Your task to perform on an android device: open wifi settings Image 0: 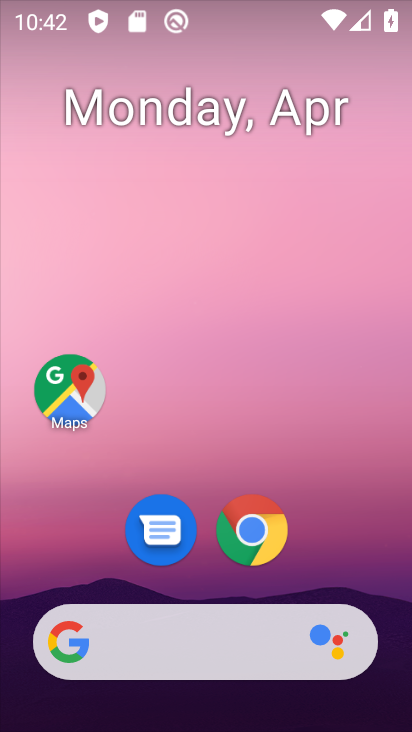
Step 0: drag from (352, 513) to (279, 51)
Your task to perform on an android device: open wifi settings Image 1: 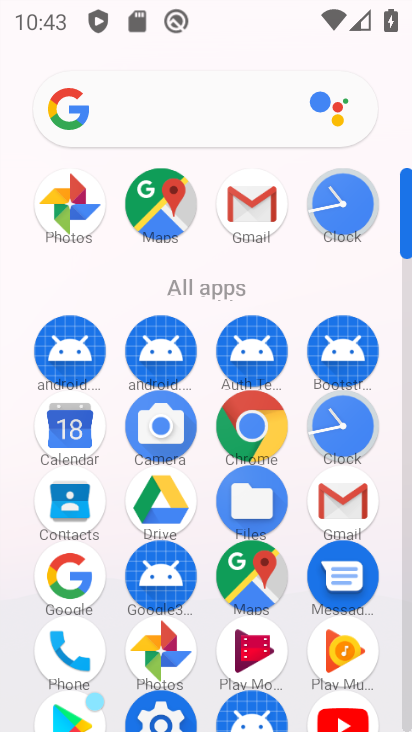
Step 1: click (409, 723)
Your task to perform on an android device: open wifi settings Image 2: 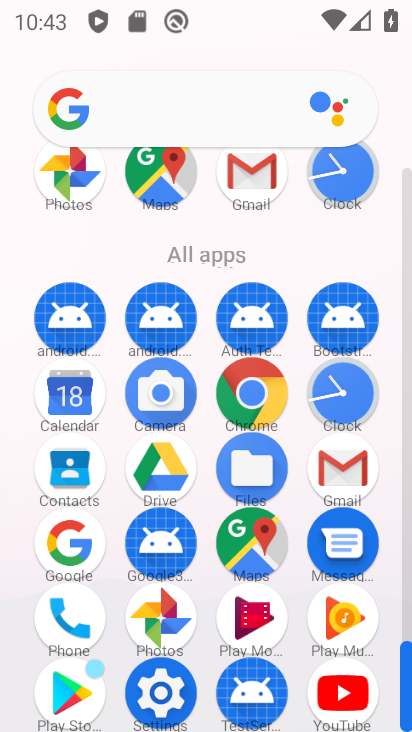
Step 2: click (152, 683)
Your task to perform on an android device: open wifi settings Image 3: 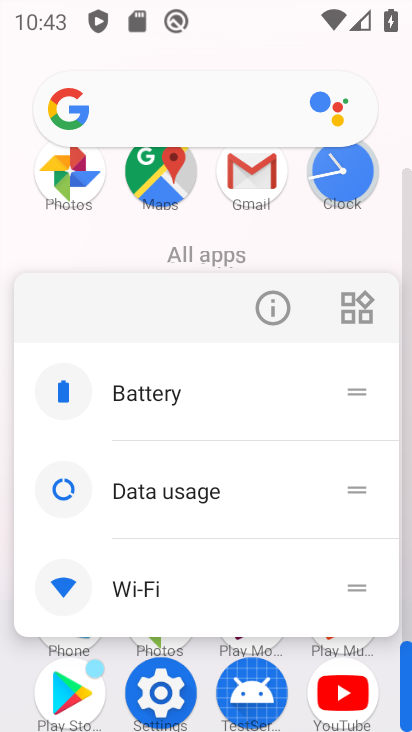
Step 3: click (152, 683)
Your task to perform on an android device: open wifi settings Image 4: 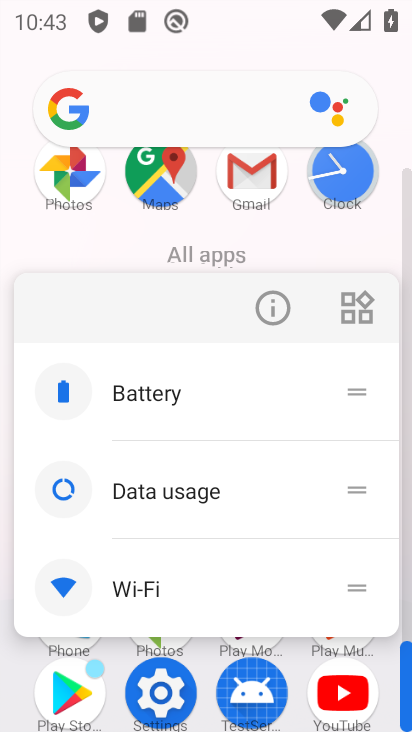
Step 4: click (152, 683)
Your task to perform on an android device: open wifi settings Image 5: 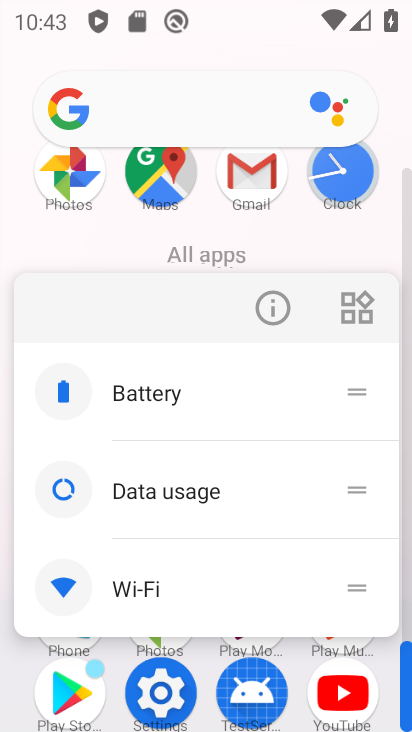
Step 5: click (152, 683)
Your task to perform on an android device: open wifi settings Image 6: 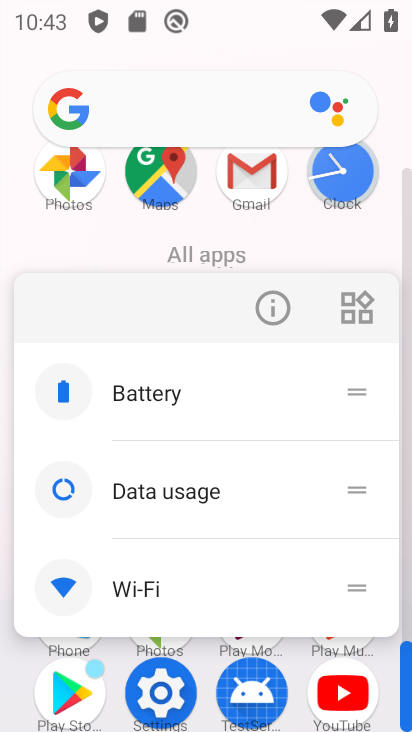
Step 6: click (152, 683)
Your task to perform on an android device: open wifi settings Image 7: 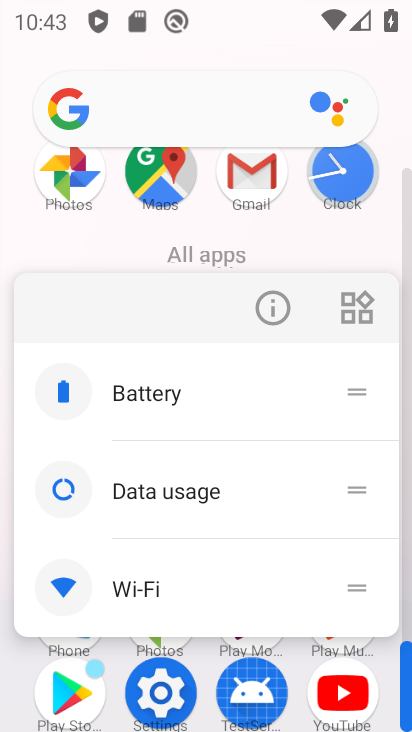
Step 7: click (153, 694)
Your task to perform on an android device: open wifi settings Image 8: 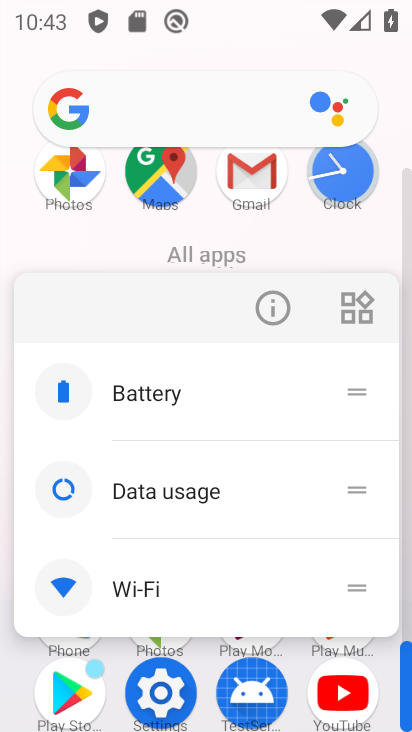
Step 8: click (153, 694)
Your task to perform on an android device: open wifi settings Image 9: 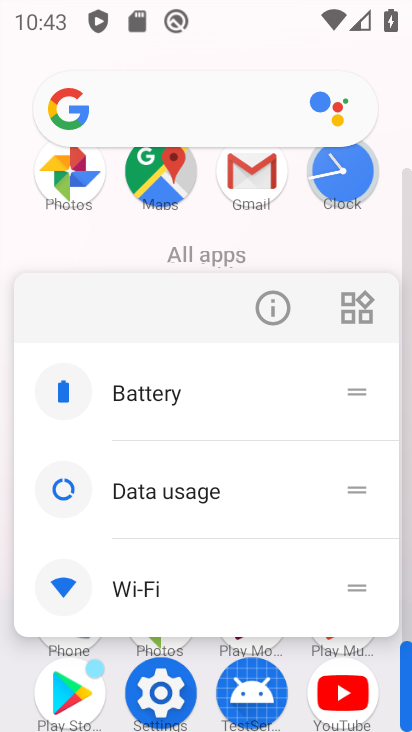
Step 9: click (153, 694)
Your task to perform on an android device: open wifi settings Image 10: 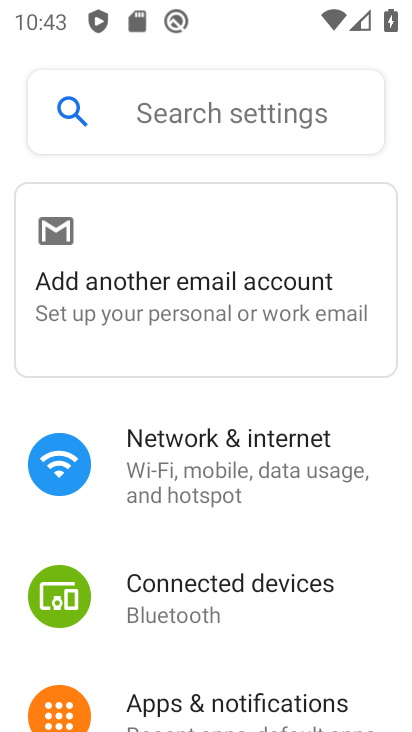
Step 10: click (186, 500)
Your task to perform on an android device: open wifi settings Image 11: 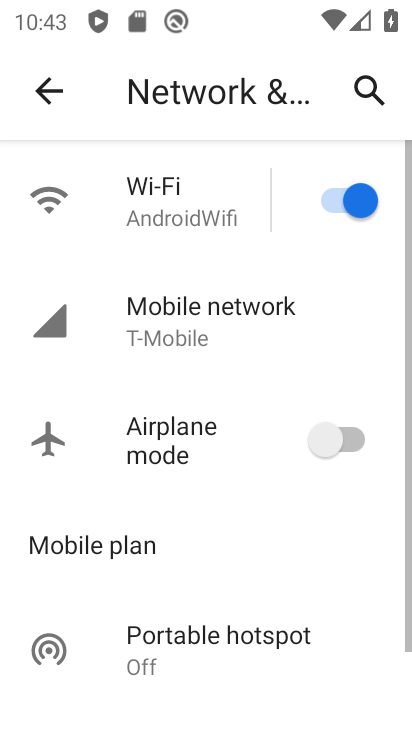
Step 11: click (170, 196)
Your task to perform on an android device: open wifi settings Image 12: 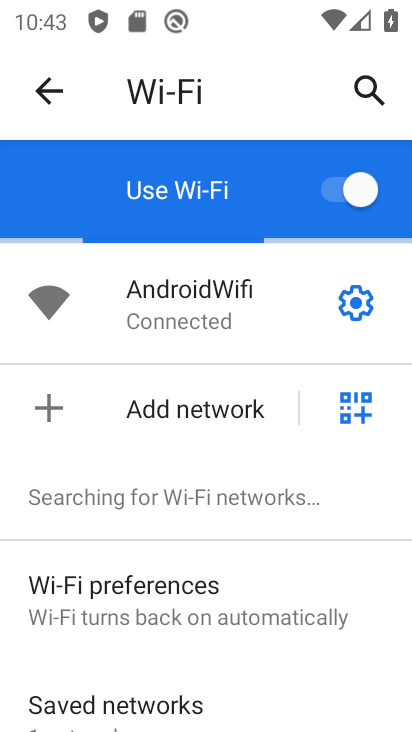
Step 12: task complete